Your task to perform on an android device: install app "ZOOM Cloud Meetings" Image 0: 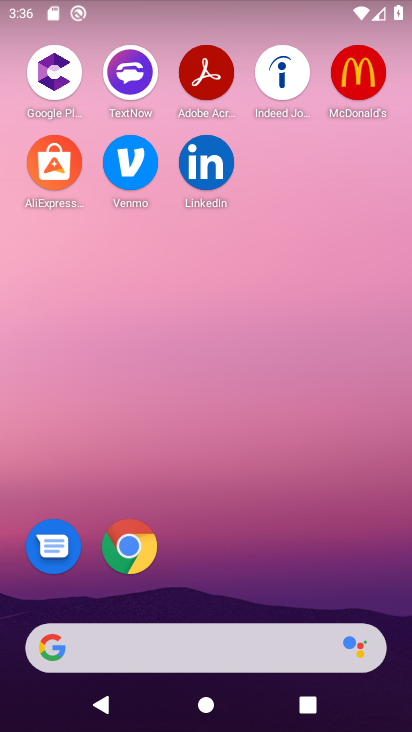
Step 0: drag from (380, 601) to (343, 133)
Your task to perform on an android device: install app "ZOOM Cloud Meetings" Image 1: 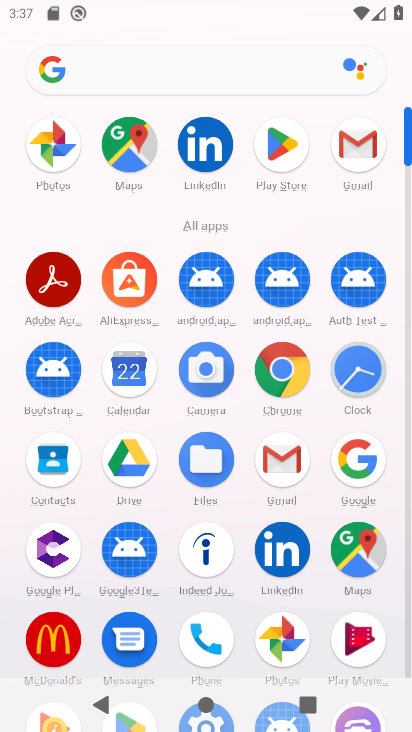
Step 1: drag from (247, 605) to (244, 379)
Your task to perform on an android device: install app "ZOOM Cloud Meetings" Image 2: 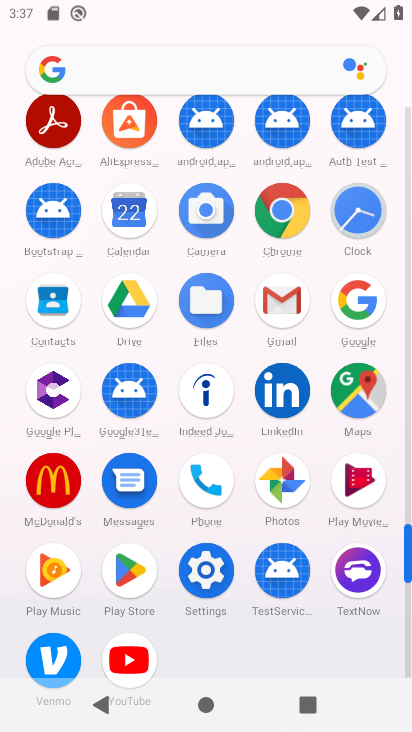
Step 2: click (131, 571)
Your task to perform on an android device: install app "ZOOM Cloud Meetings" Image 3: 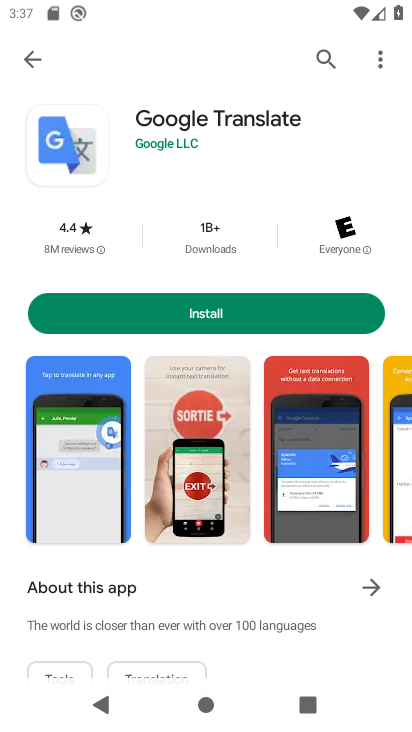
Step 3: click (320, 56)
Your task to perform on an android device: install app "ZOOM Cloud Meetings" Image 4: 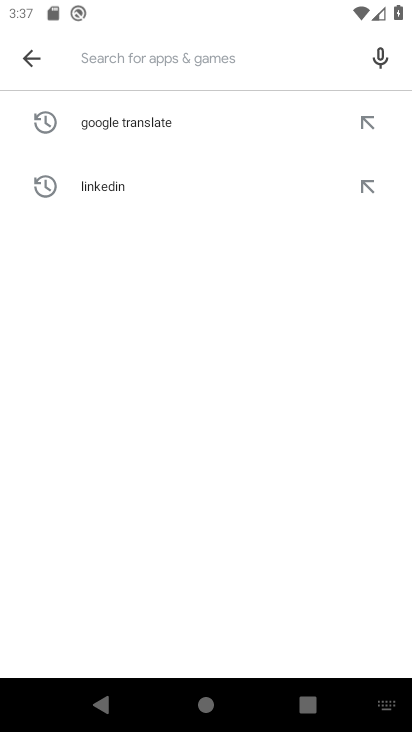
Step 4: type "ZOOM Cloud Meetings"
Your task to perform on an android device: install app "ZOOM Cloud Meetings" Image 5: 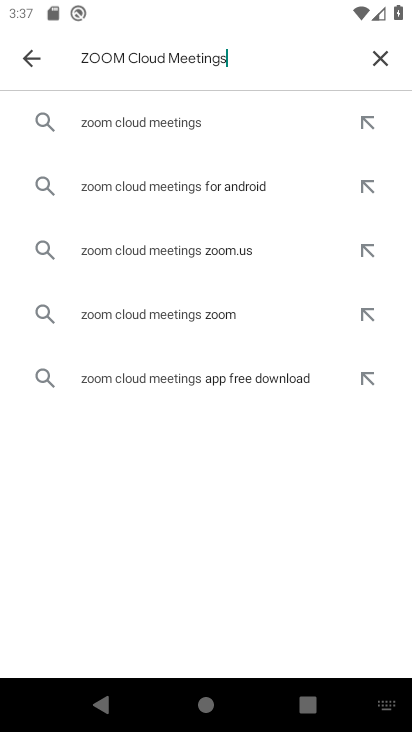
Step 5: click (133, 118)
Your task to perform on an android device: install app "ZOOM Cloud Meetings" Image 6: 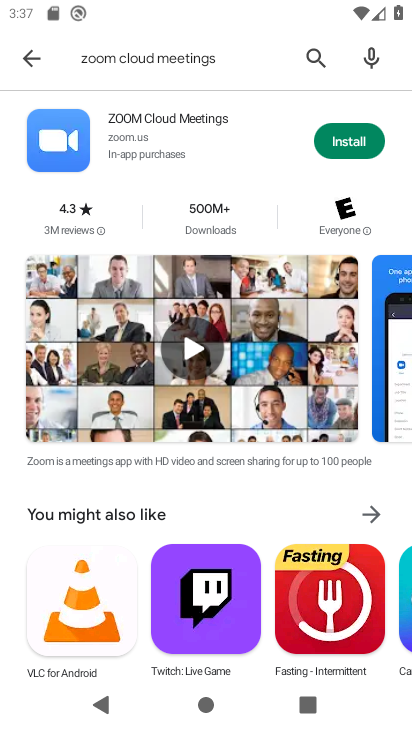
Step 6: click (101, 124)
Your task to perform on an android device: install app "ZOOM Cloud Meetings" Image 7: 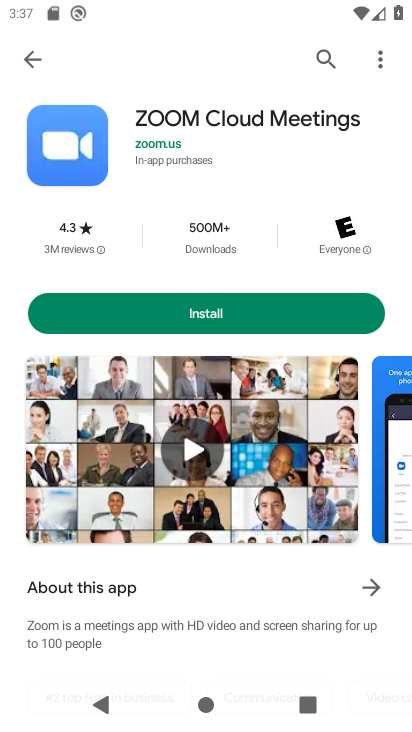
Step 7: click (202, 314)
Your task to perform on an android device: install app "ZOOM Cloud Meetings" Image 8: 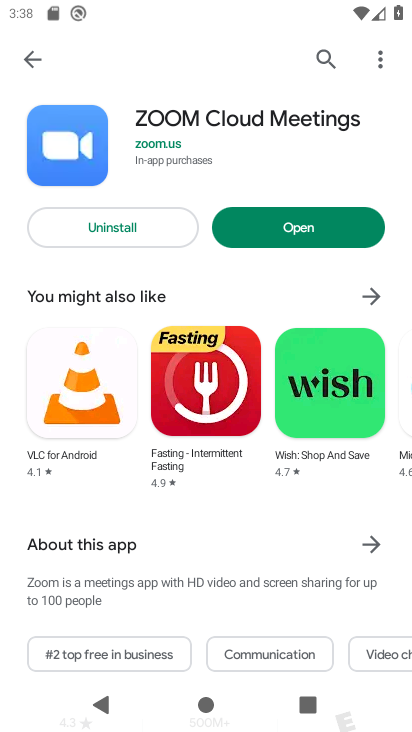
Step 8: task complete